Your task to perform on an android device: Search for a 24-inch cordless drill. Image 0: 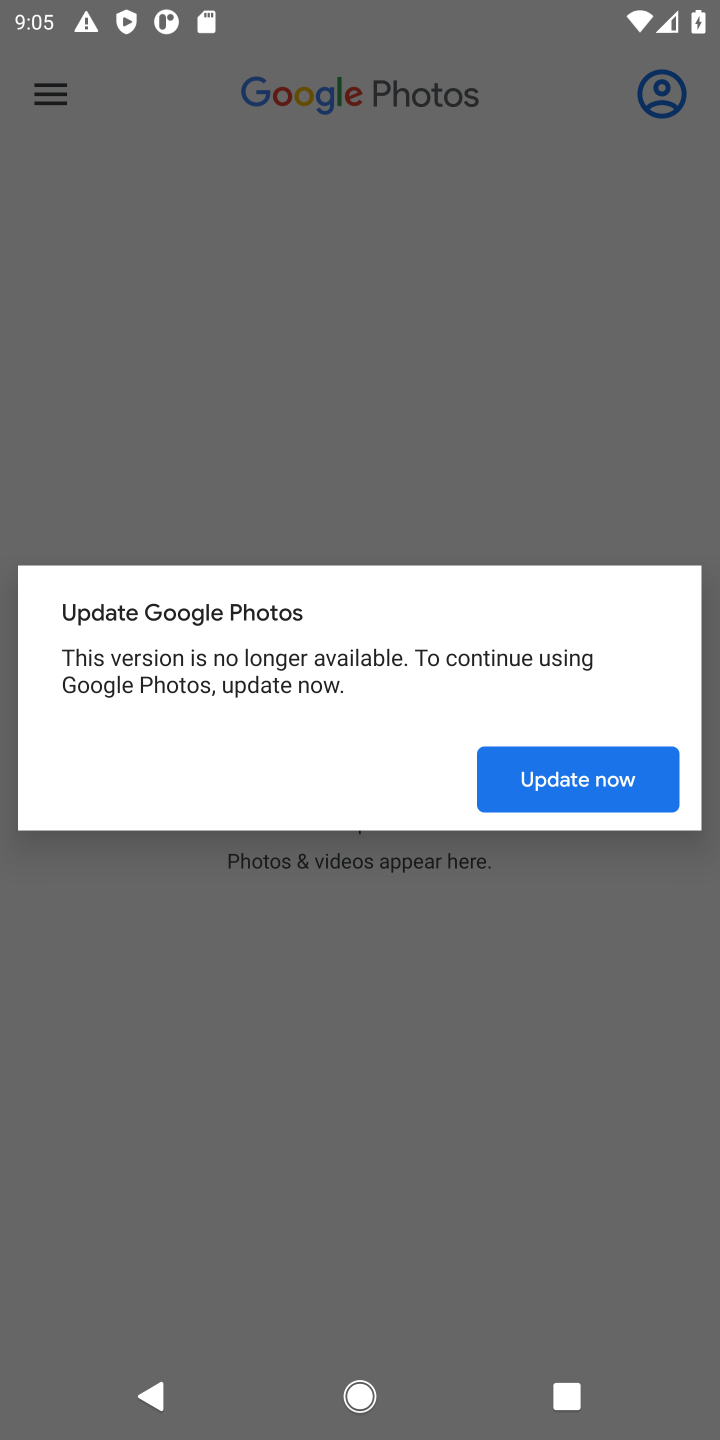
Step 0: press home button
Your task to perform on an android device: Search for a 24-inch cordless drill. Image 1: 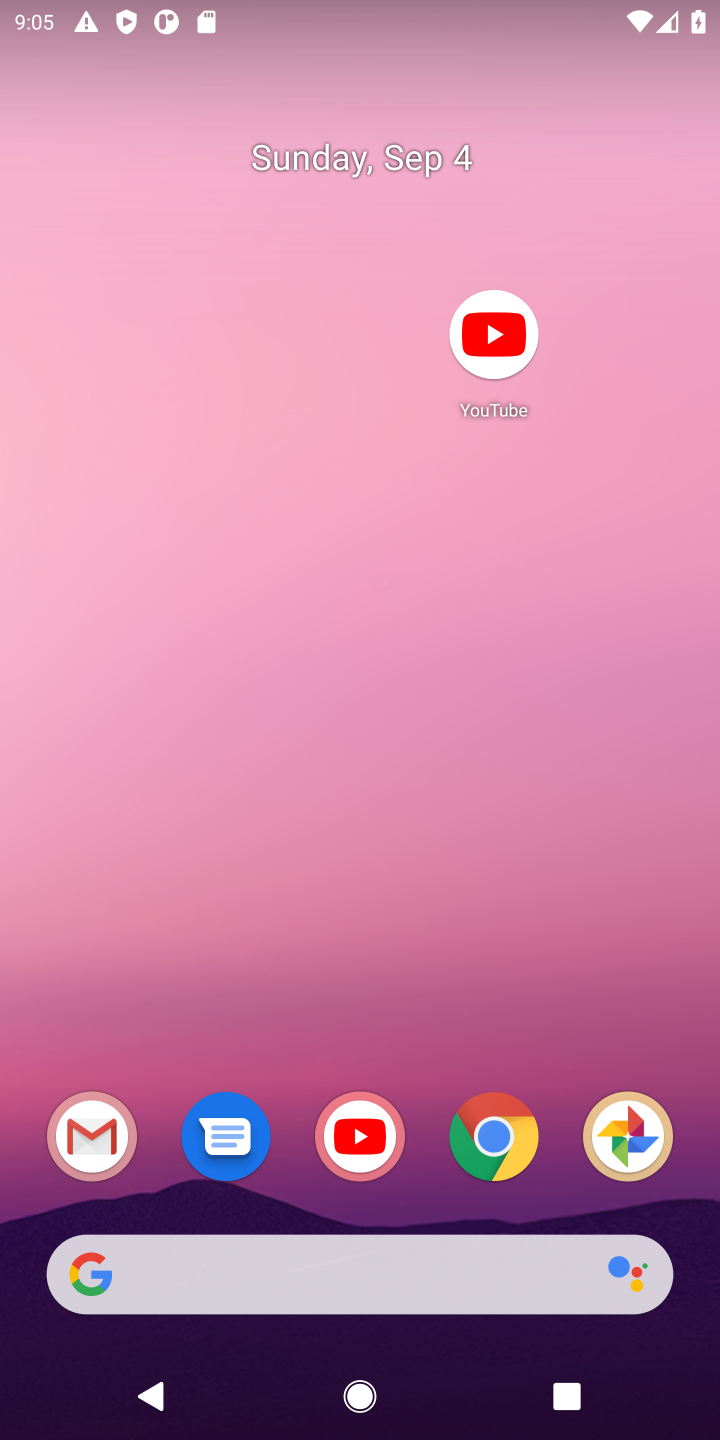
Step 1: click (418, 261)
Your task to perform on an android device: Search for a 24-inch cordless drill. Image 2: 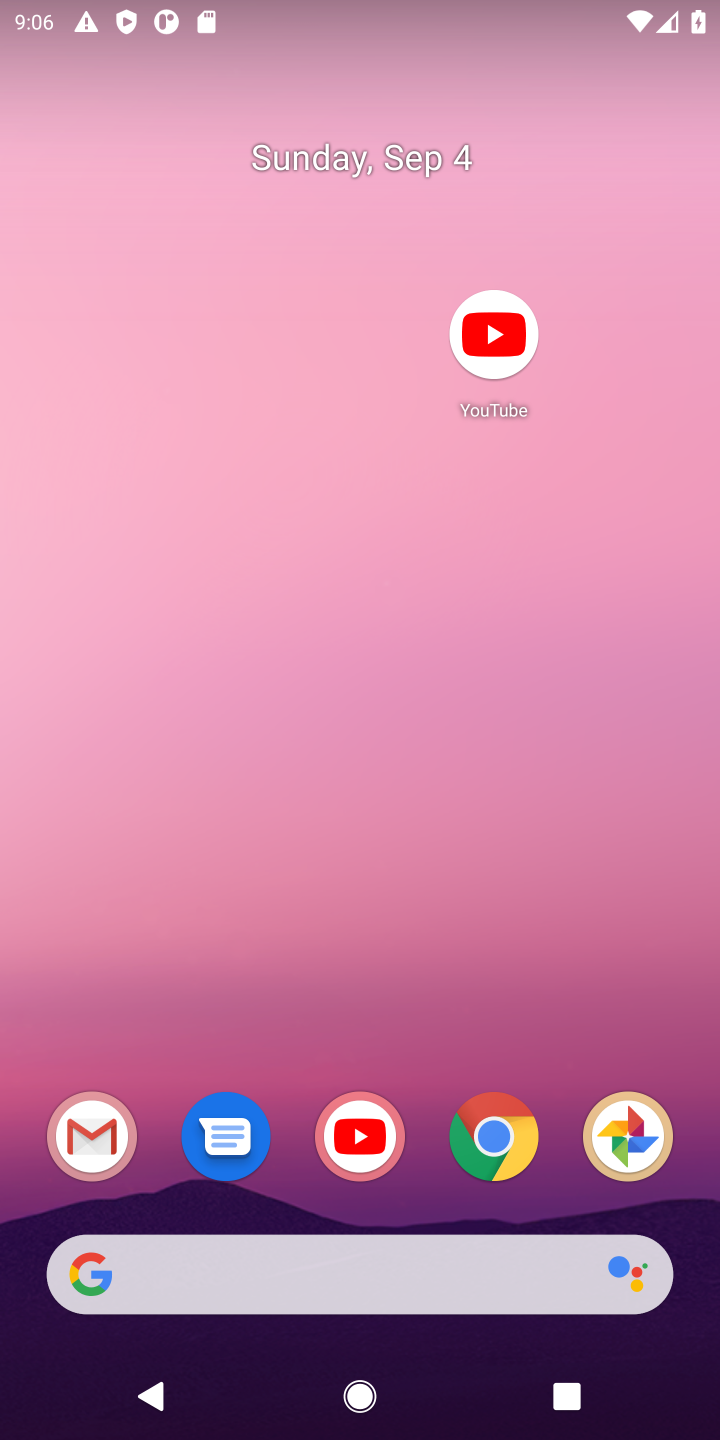
Step 2: drag from (407, 1158) to (471, 456)
Your task to perform on an android device: Search for a 24-inch cordless drill. Image 3: 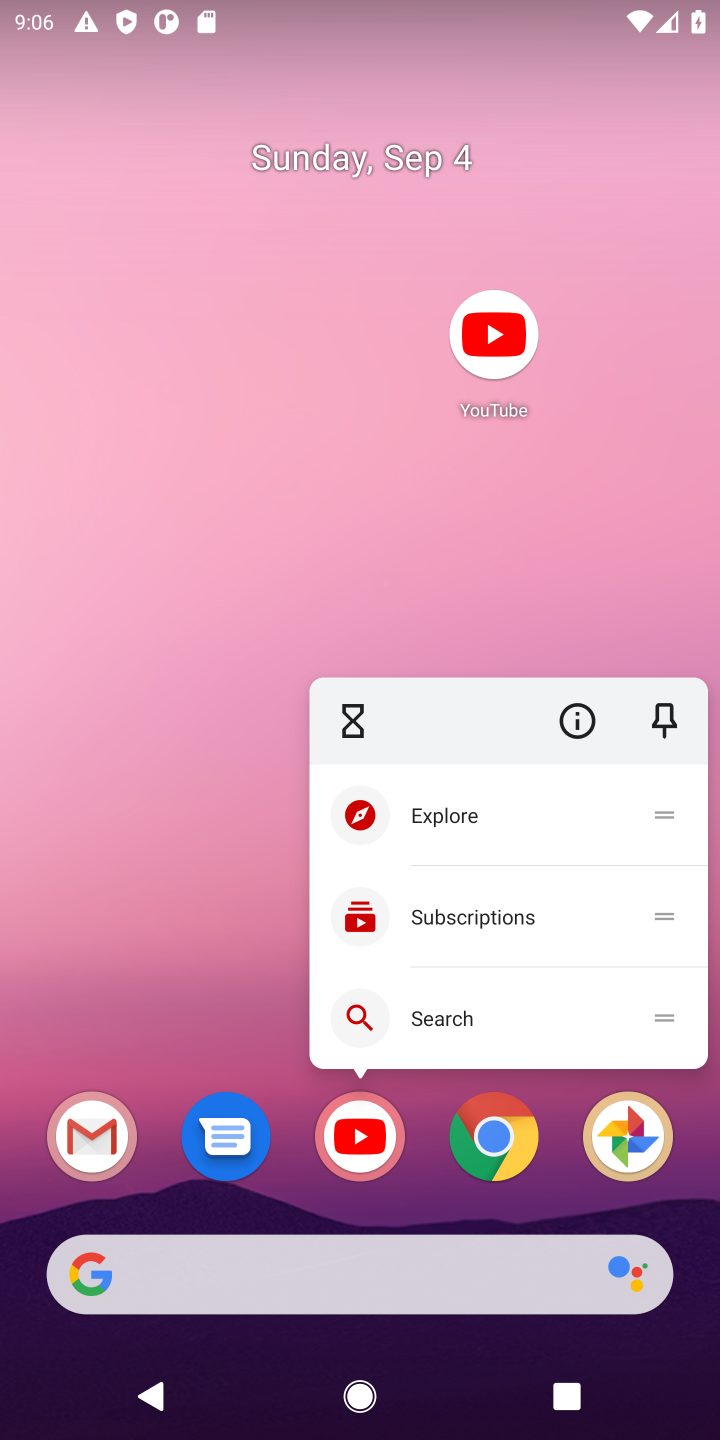
Step 3: click (377, 1198)
Your task to perform on an android device: Search for a 24-inch cordless drill. Image 4: 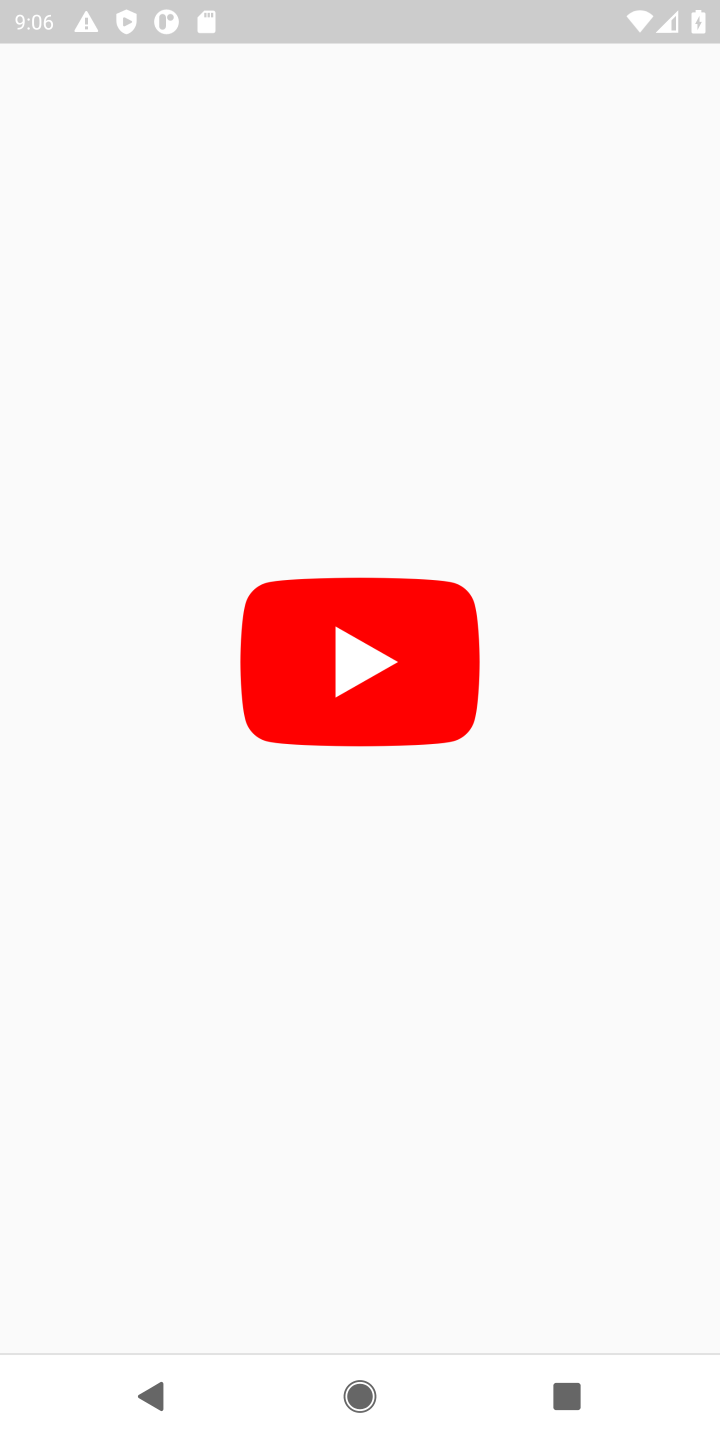
Step 4: press home button
Your task to perform on an android device: Search for a 24-inch cordless drill. Image 5: 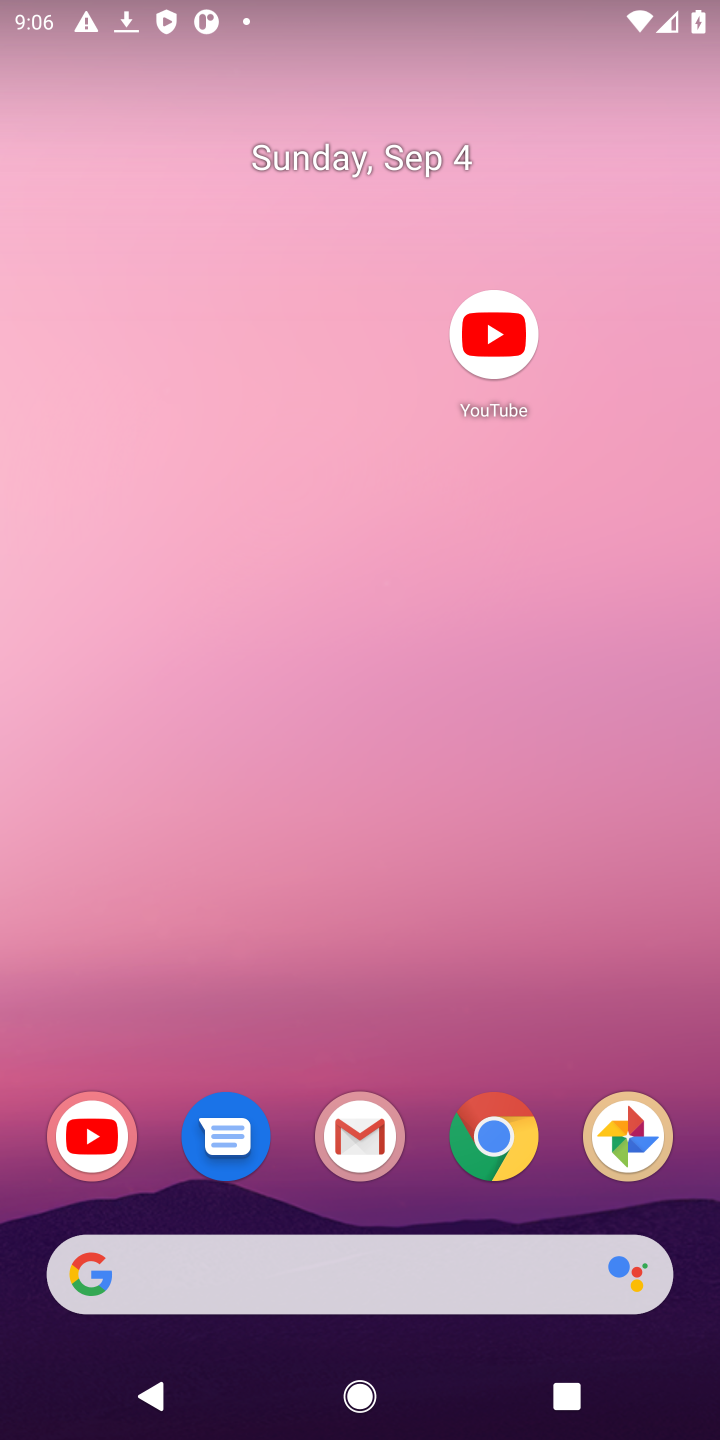
Step 5: click (452, 280)
Your task to perform on an android device: Search for a 24-inch cordless drill. Image 6: 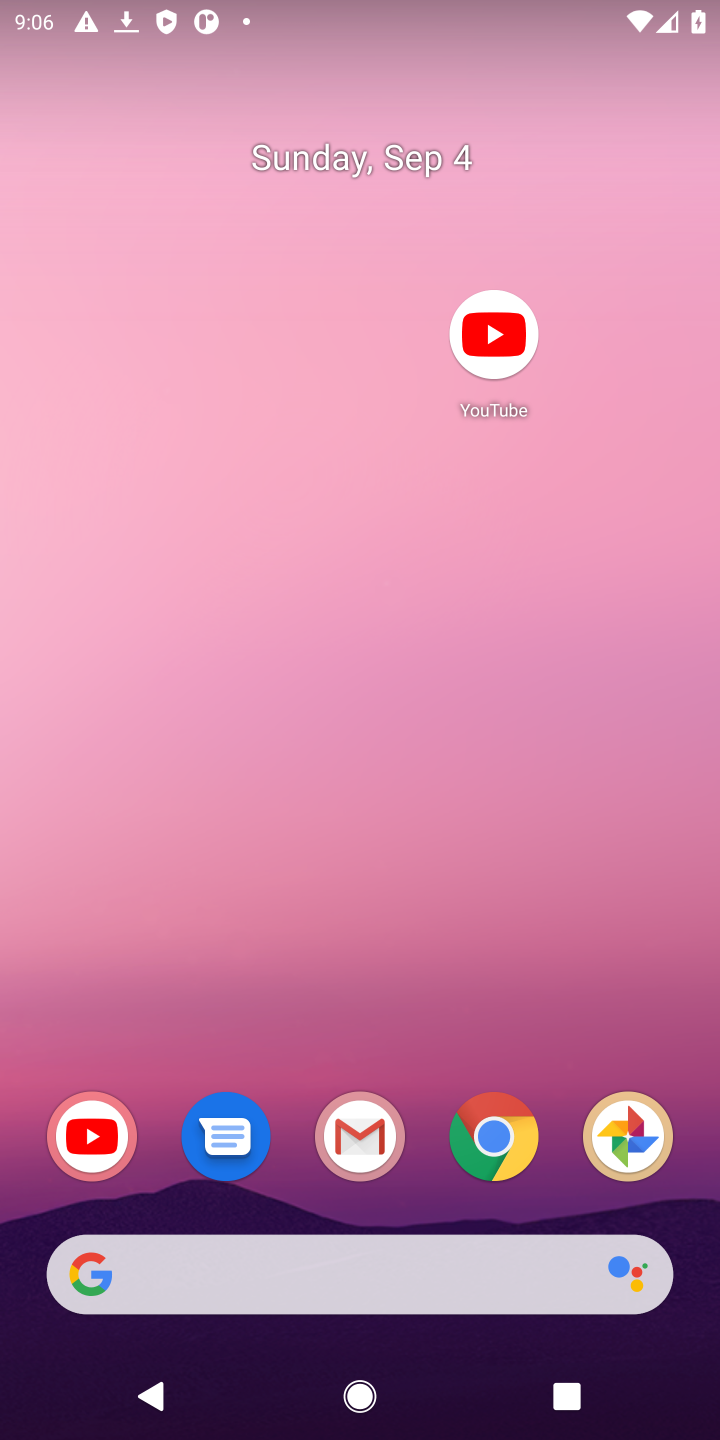
Step 6: drag from (415, 1045) to (499, 393)
Your task to perform on an android device: Search for a 24-inch cordless drill. Image 7: 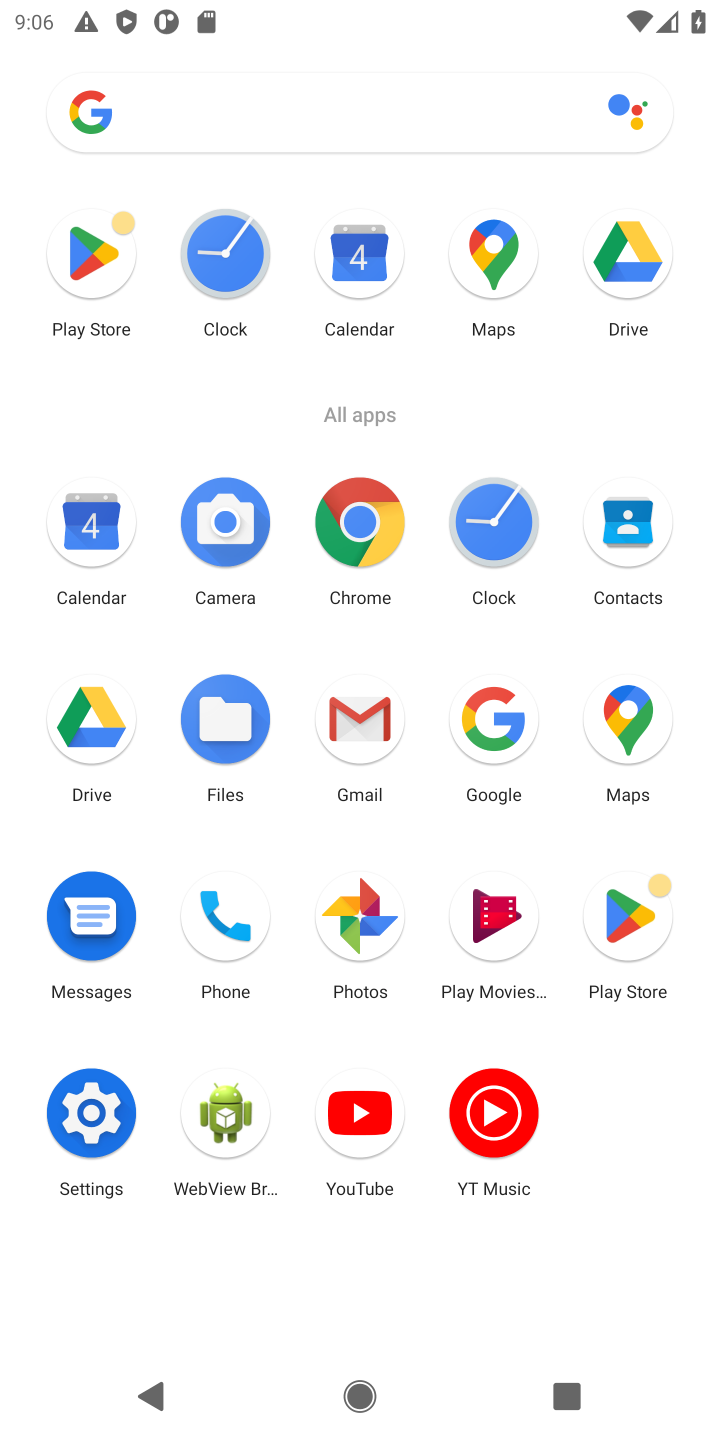
Step 7: click (480, 737)
Your task to perform on an android device: Search for a 24-inch cordless drill. Image 8: 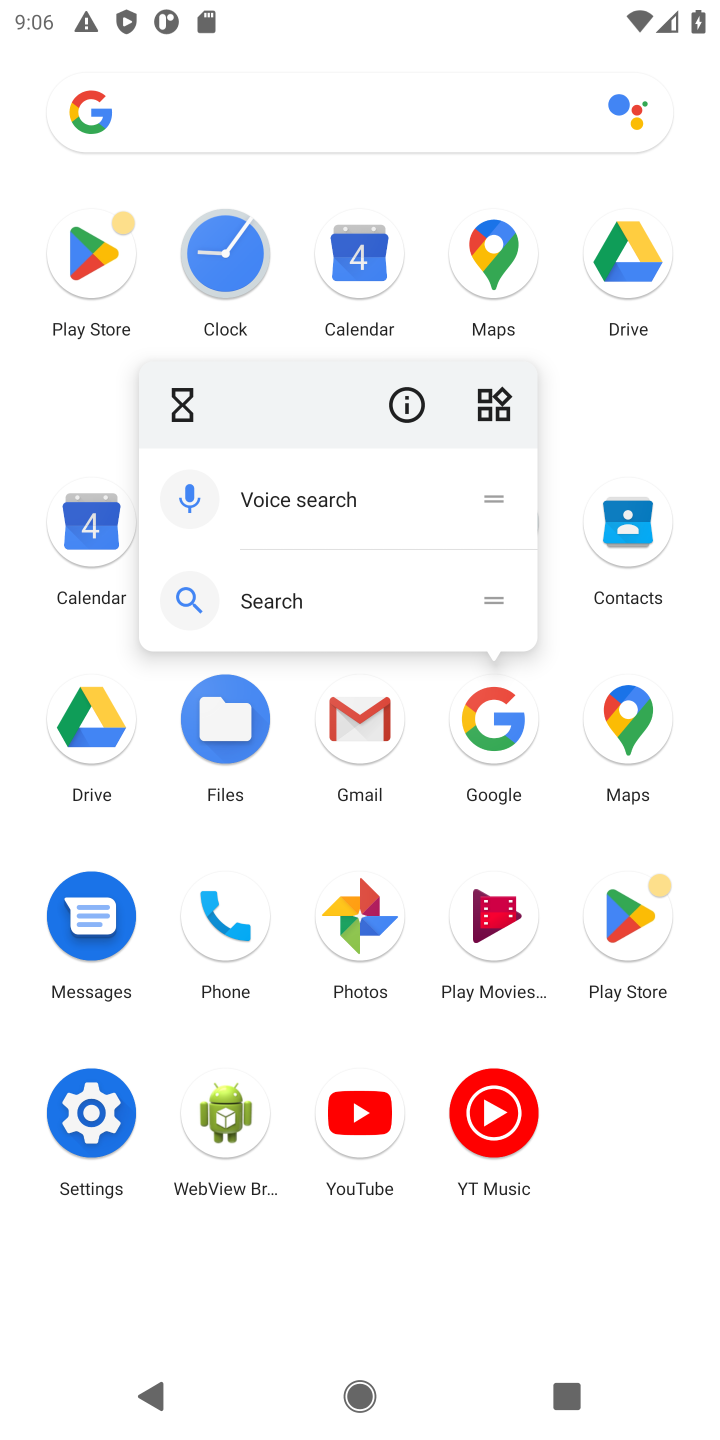
Step 8: click (493, 719)
Your task to perform on an android device: Search for a 24-inch cordless drill. Image 9: 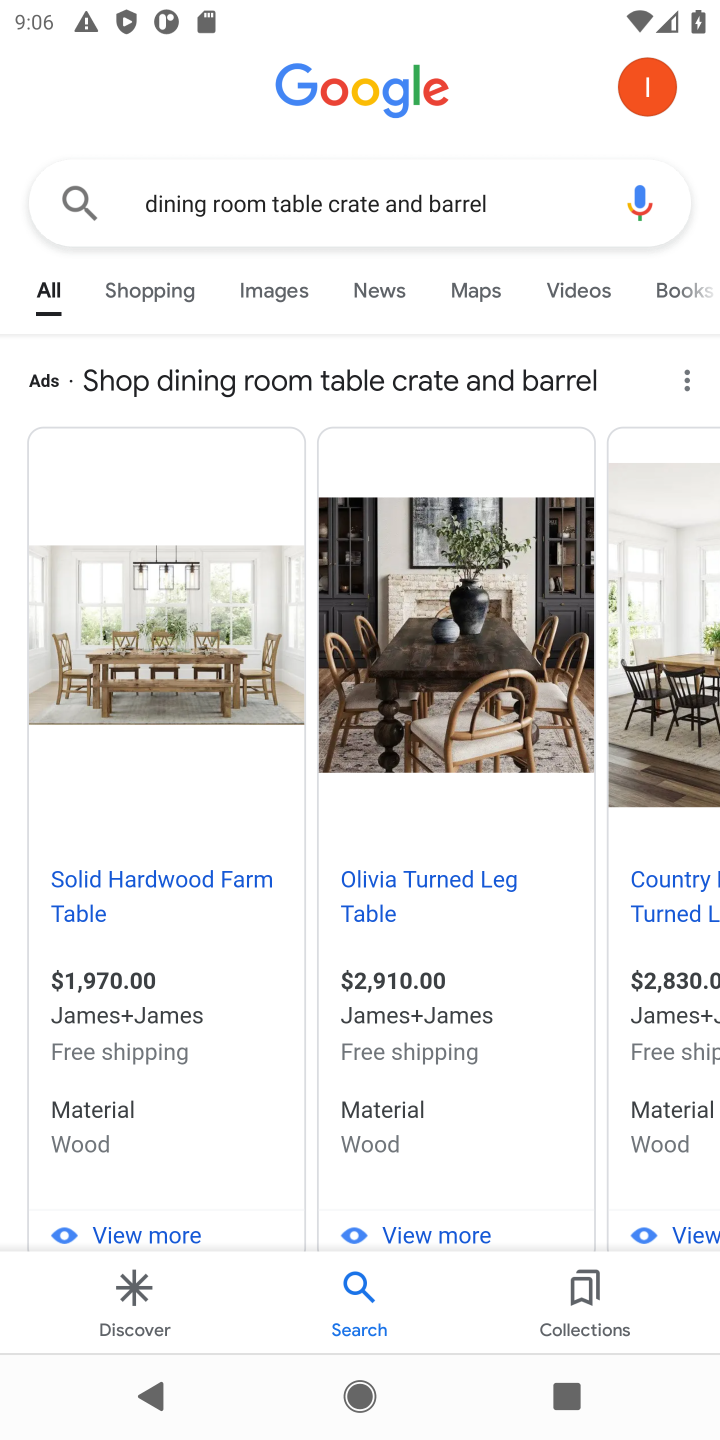
Step 9: click (515, 206)
Your task to perform on an android device: Search for a 24-inch cordless drill. Image 10: 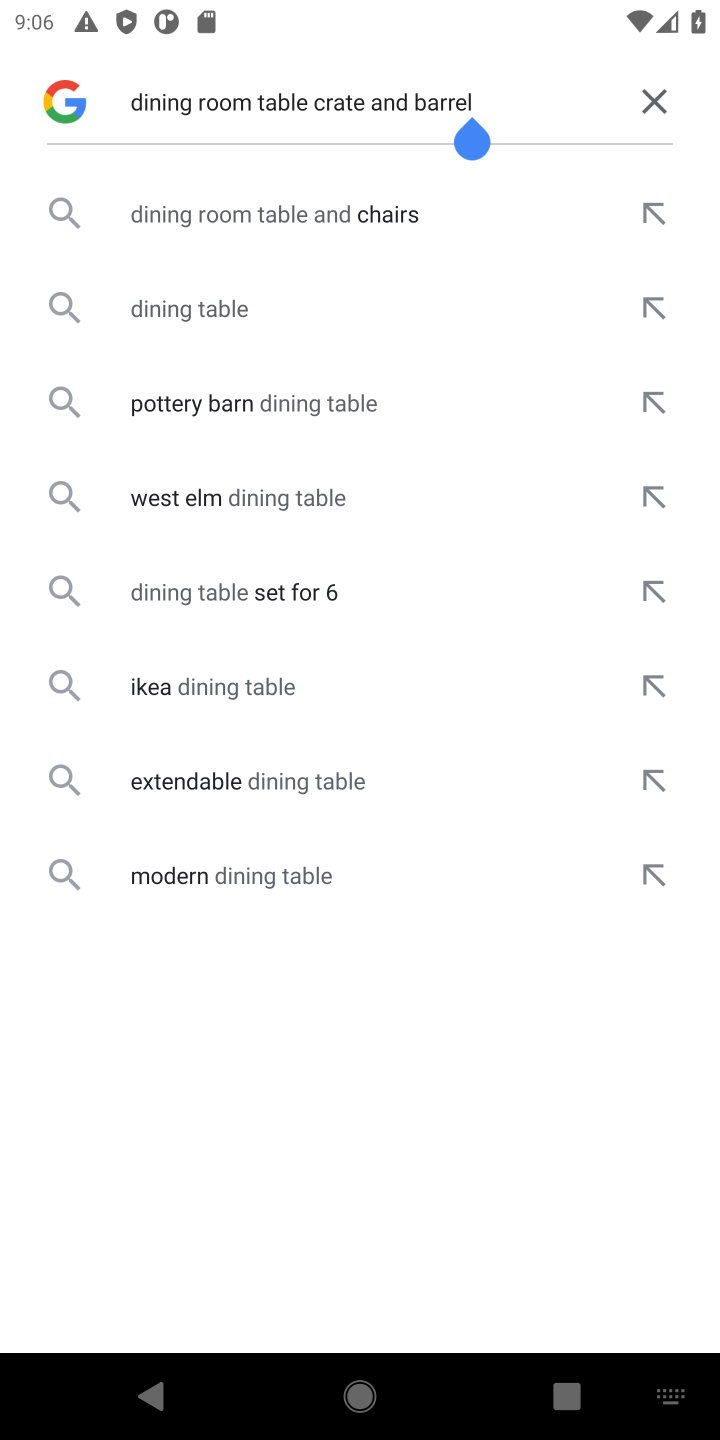
Step 10: click (650, 102)
Your task to perform on an android device: Search for a 24-inch cordless drill. Image 11: 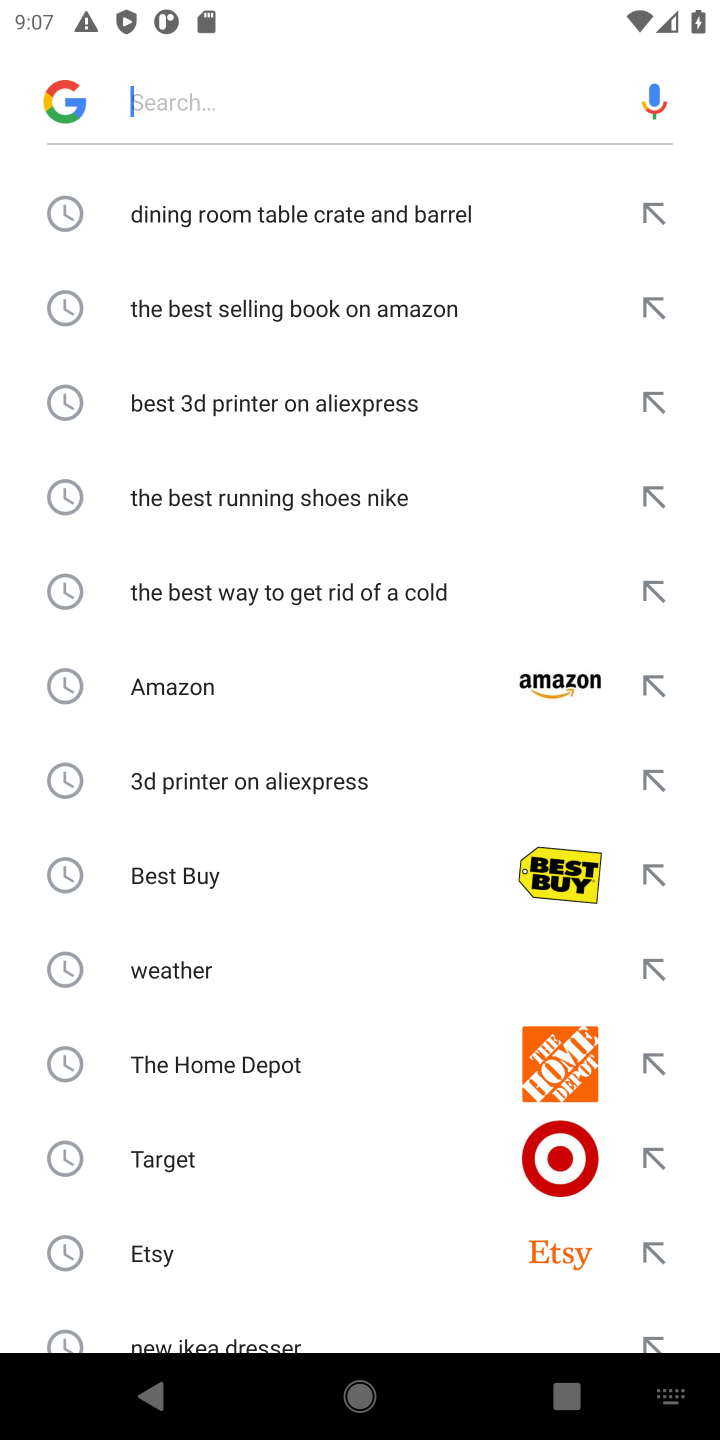
Step 11: type "a 24-inch cordless drill"
Your task to perform on an android device: Search for a 24-inch cordless drill. Image 12: 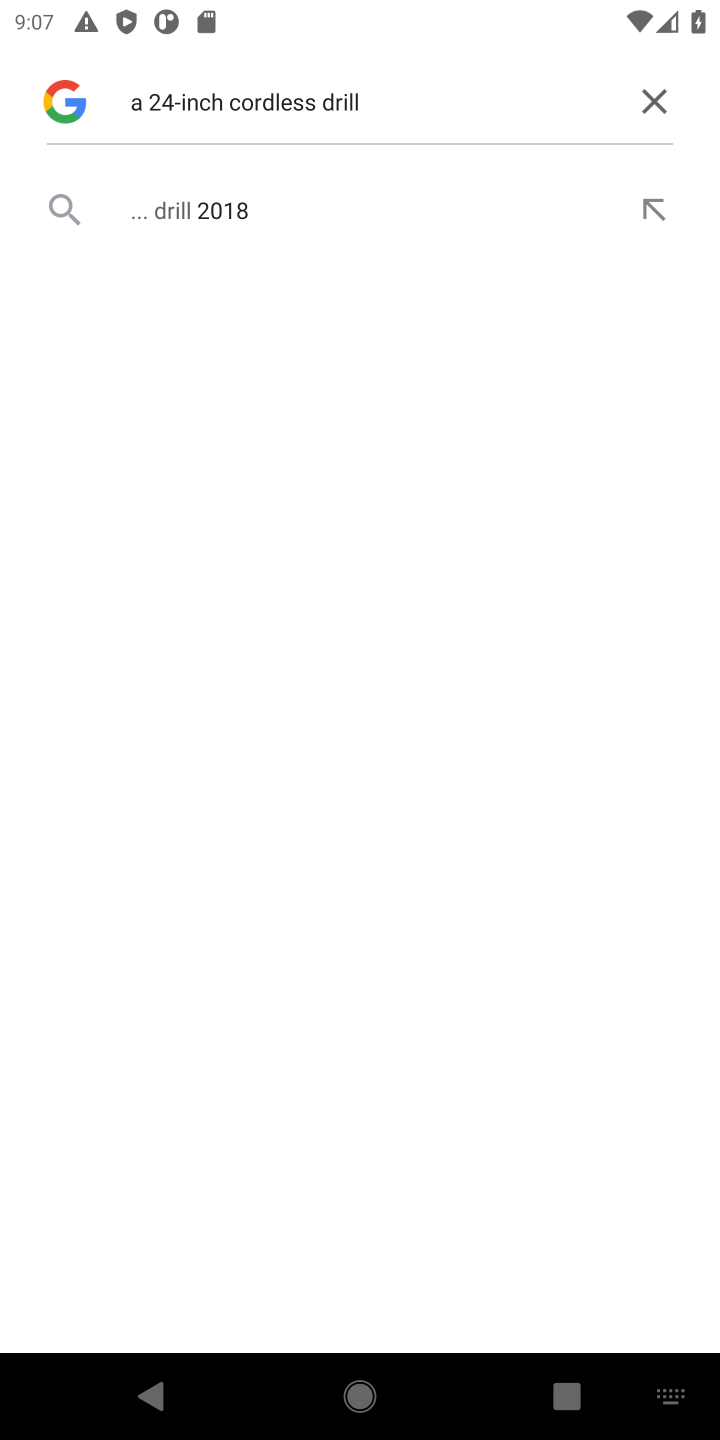
Step 12: click (222, 216)
Your task to perform on an android device: Search for a 24-inch cordless drill. Image 13: 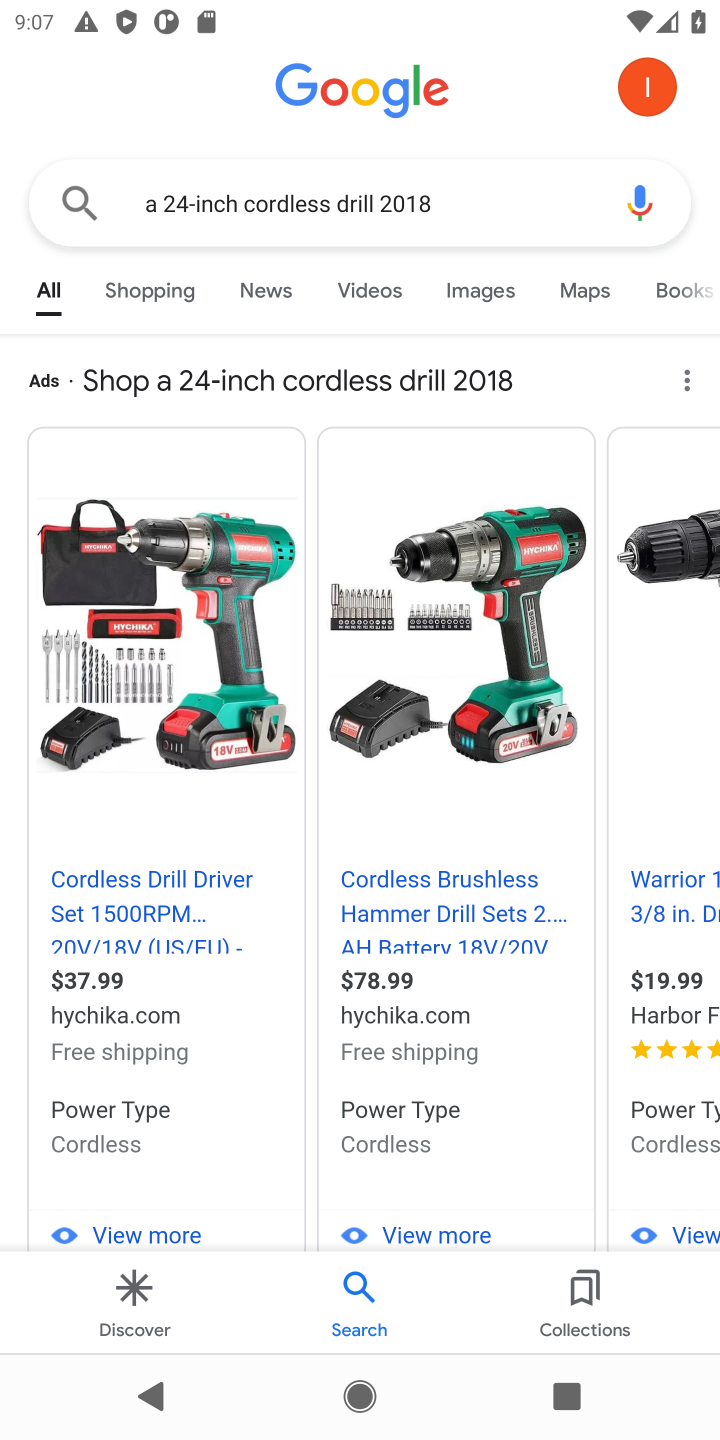
Step 13: click (565, 701)
Your task to perform on an android device: Search for a 24-inch cordless drill. Image 14: 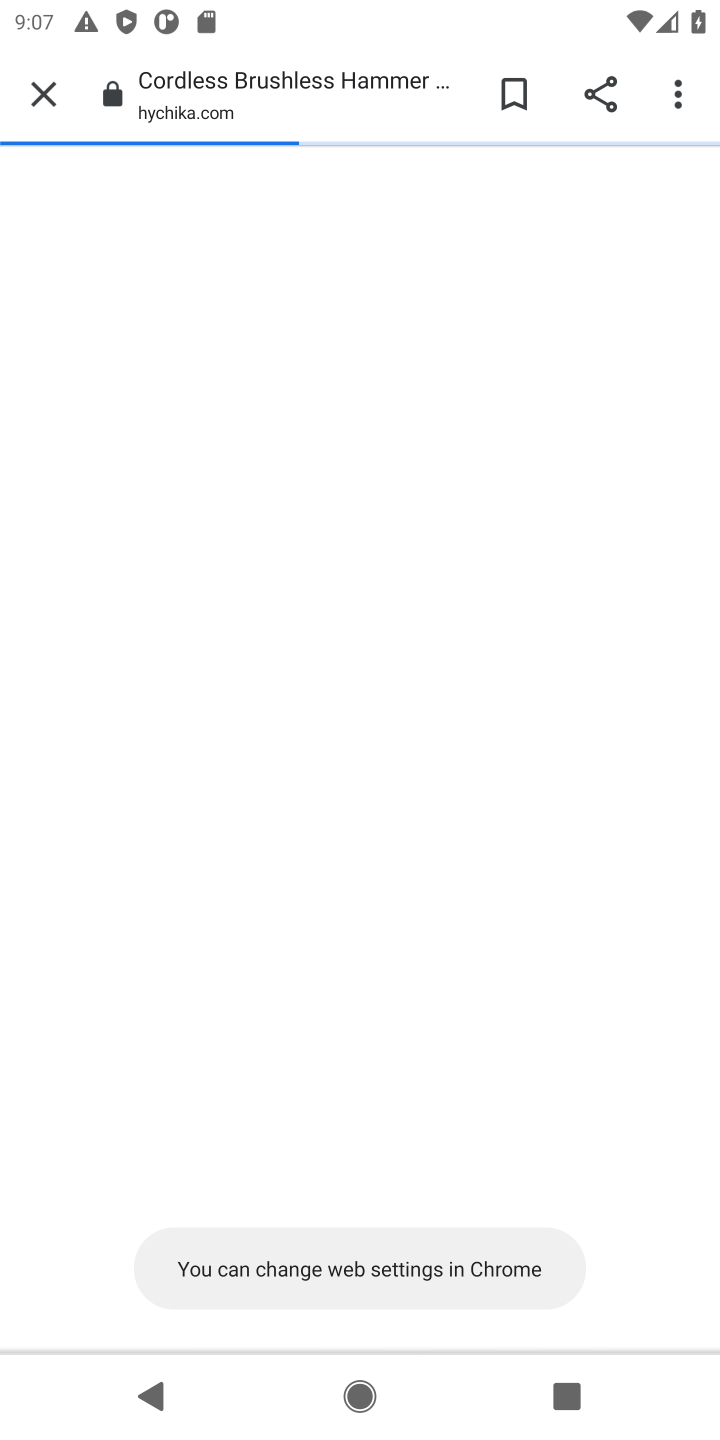
Step 14: task complete